Your task to perform on an android device: turn off javascript in the chrome app Image 0: 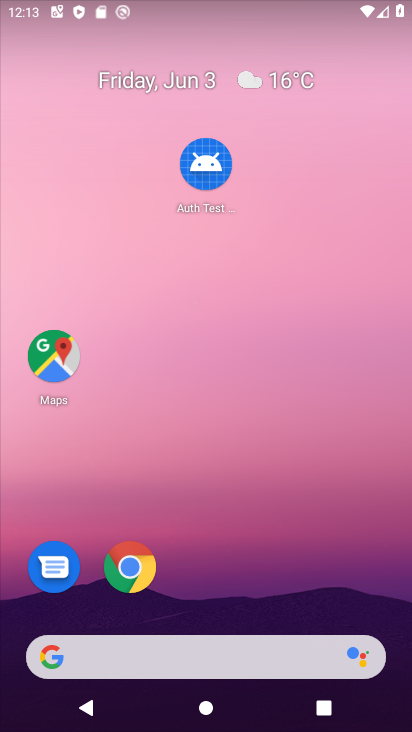
Step 0: click (147, 569)
Your task to perform on an android device: turn off javascript in the chrome app Image 1: 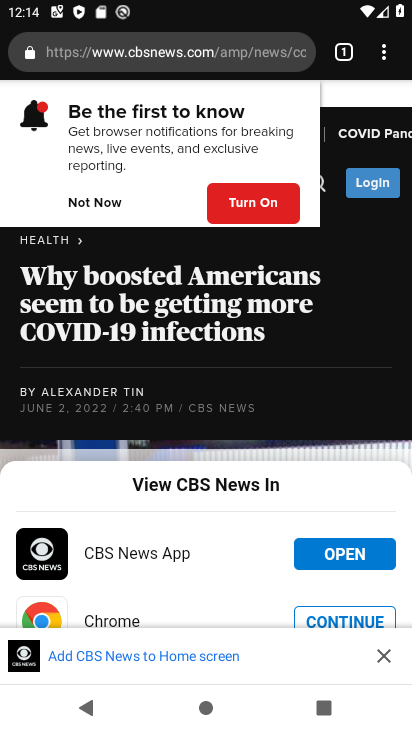
Step 1: click (388, 57)
Your task to perform on an android device: turn off javascript in the chrome app Image 2: 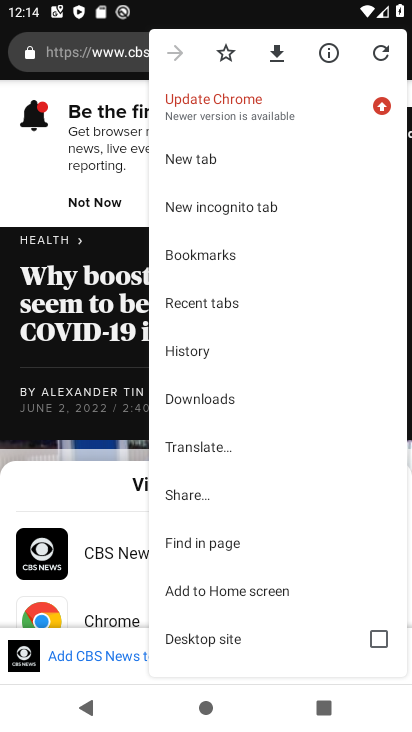
Step 2: drag from (195, 633) to (266, 249)
Your task to perform on an android device: turn off javascript in the chrome app Image 3: 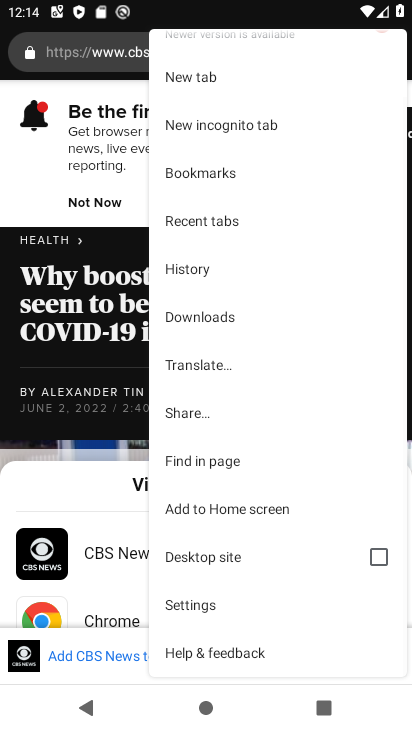
Step 3: click (191, 600)
Your task to perform on an android device: turn off javascript in the chrome app Image 4: 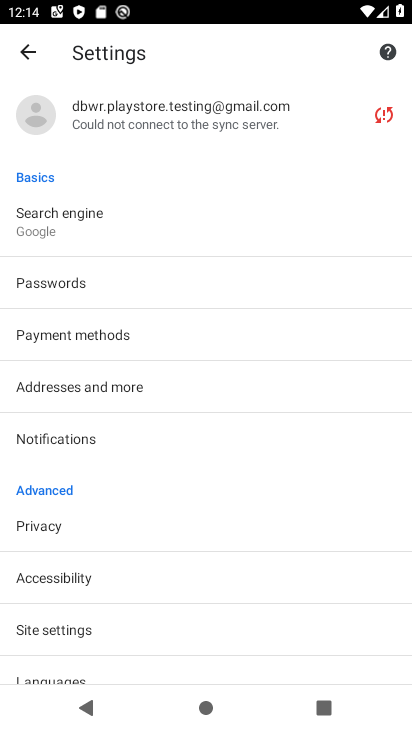
Step 4: click (106, 631)
Your task to perform on an android device: turn off javascript in the chrome app Image 5: 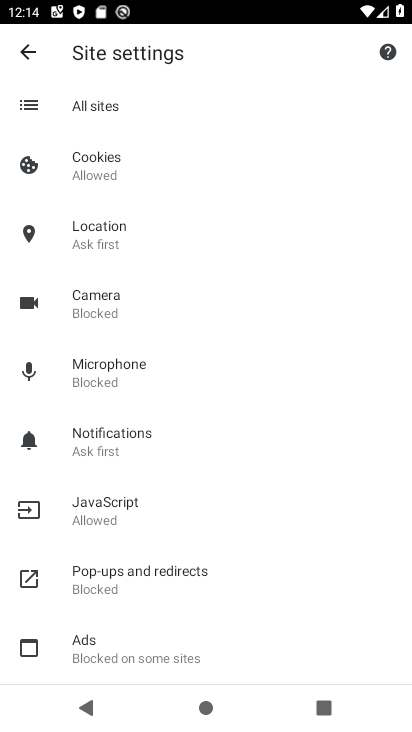
Step 5: click (161, 492)
Your task to perform on an android device: turn off javascript in the chrome app Image 6: 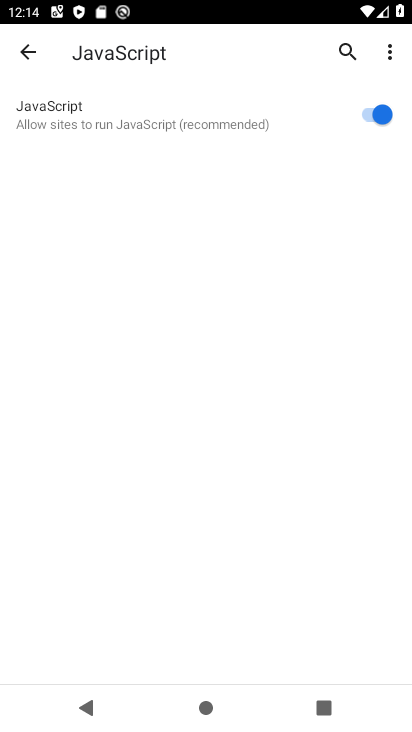
Step 6: click (363, 119)
Your task to perform on an android device: turn off javascript in the chrome app Image 7: 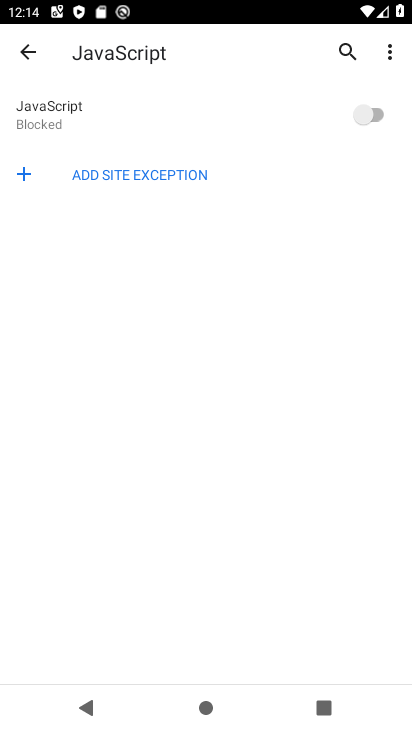
Step 7: task complete